Your task to perform on an android device: visit the assistant section in the google photos Image 0: 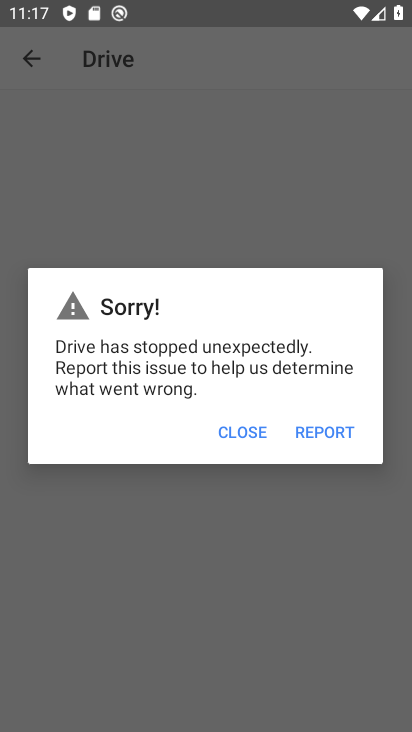
Step 0: press home button
Your task to perform on an android device: visit the assistant section in the google photos Image 1: 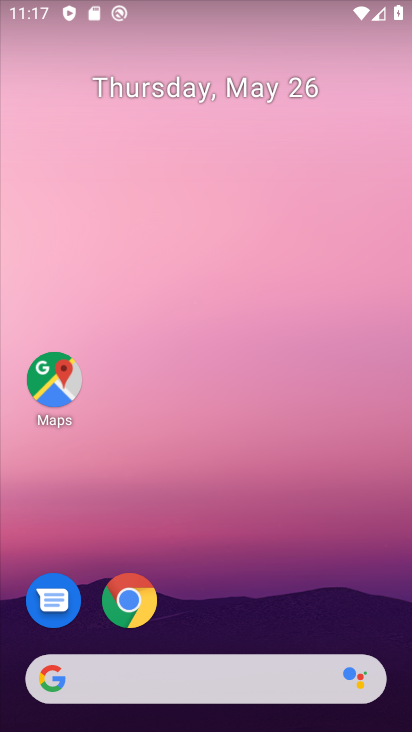
Step 1: drag from (212, 601) to (245, 21)
Your task to perform on an android device: visit the assistant section in the google photos Image 2: 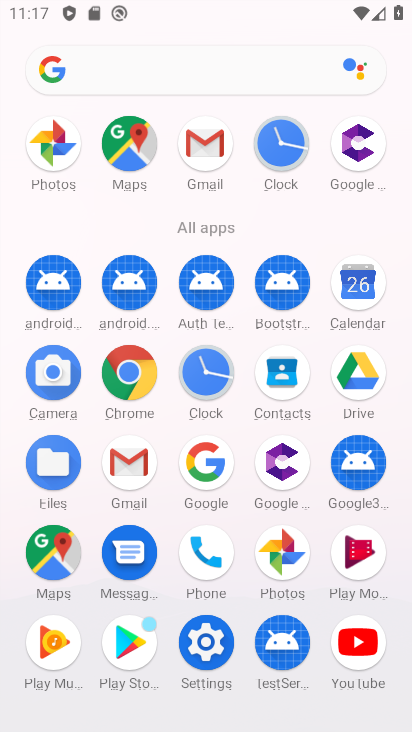
Step 2: click (59, 148)
Your task to perform on an android device: visit the assistant section in the google photos Image 3: 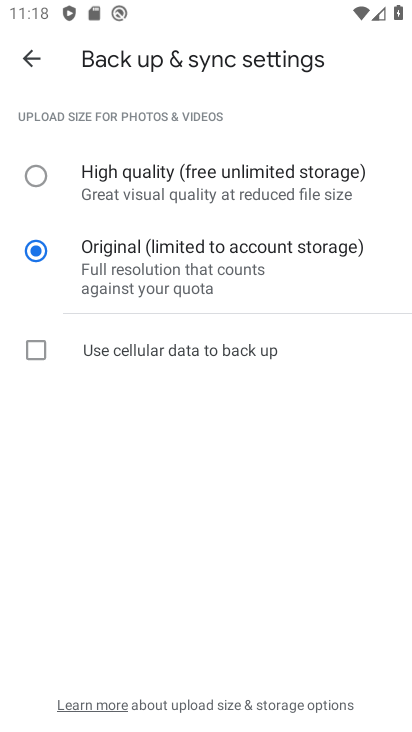
Step 3: click (31, 55)
Your task to perform on an android device: visit the assistant section in the google photos Image 4: 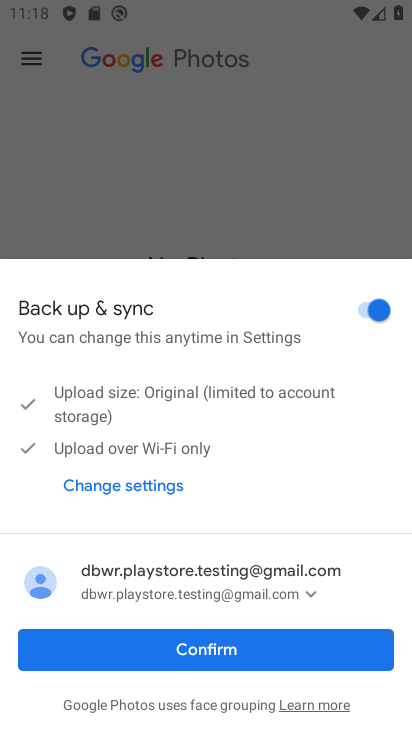
Step 4: click (121, 649)
Your task to perform on an android device: visit the assistant section in the google photos Image 5: 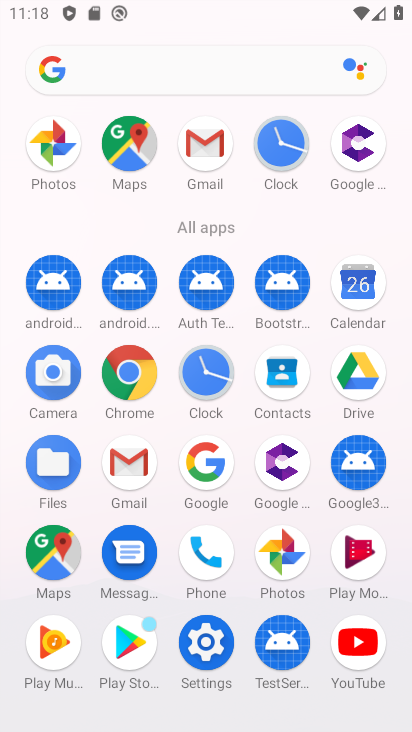
Step 5: click (272, 564)
Your task to perform on an android device: visit the assistant section in the google photos Image 6: 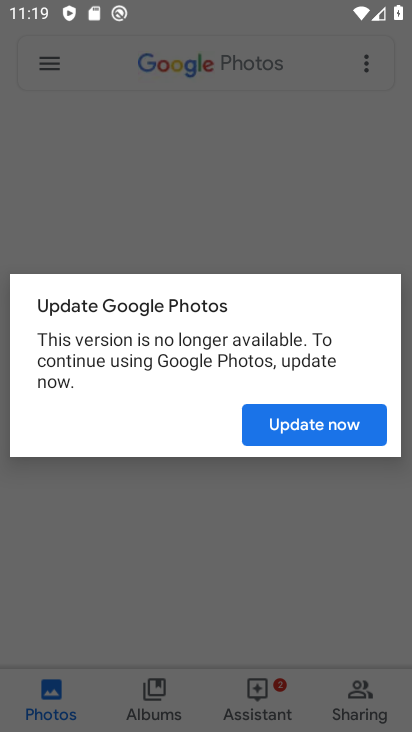
Step 6: click (304, 436)
Your task to perform on an android device: visit the assistant section in the google photos Image 7: 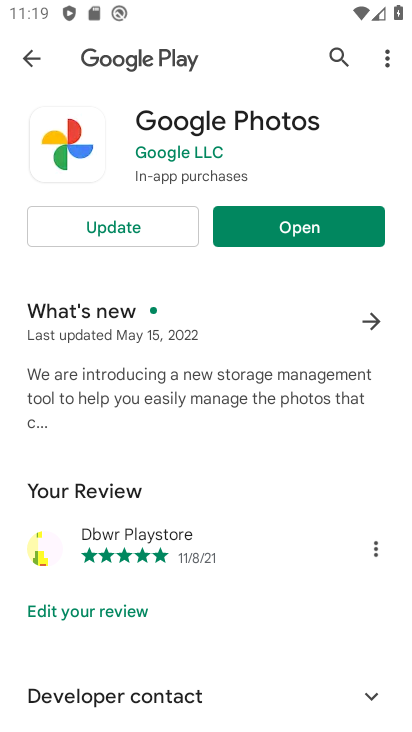
Step 7: click (276, 231)
Your task to perform on an android device: visit the assistant section in the google photos Image 8: 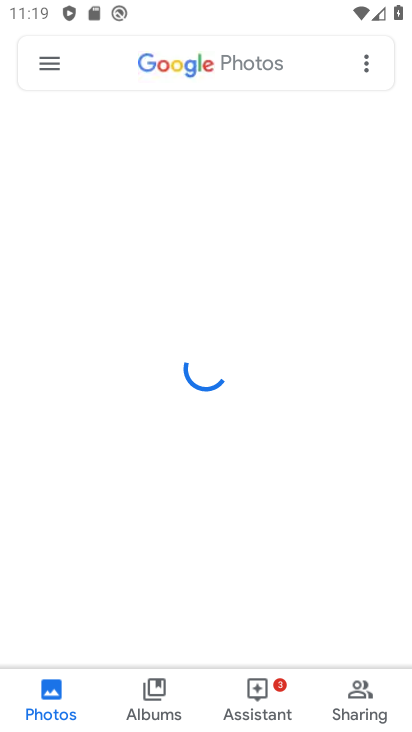
Step 8: click (266, 686)
Your task to perform on an android device: visit the assistant section in the google photos Image 9: 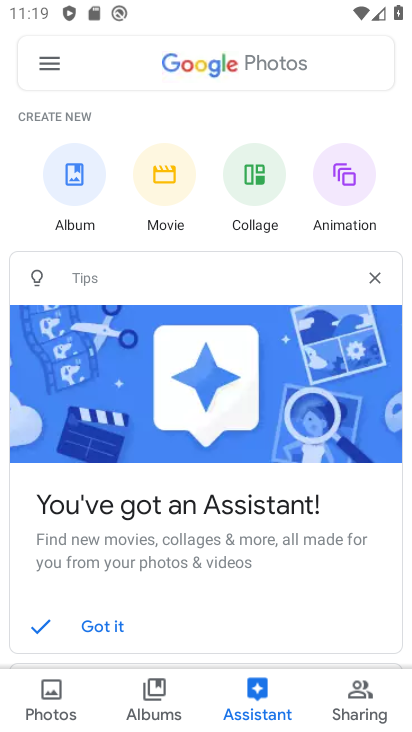
Step 9: task complete